Your task to perform on an android device: Is it going to rain tomorrow? Image 0: 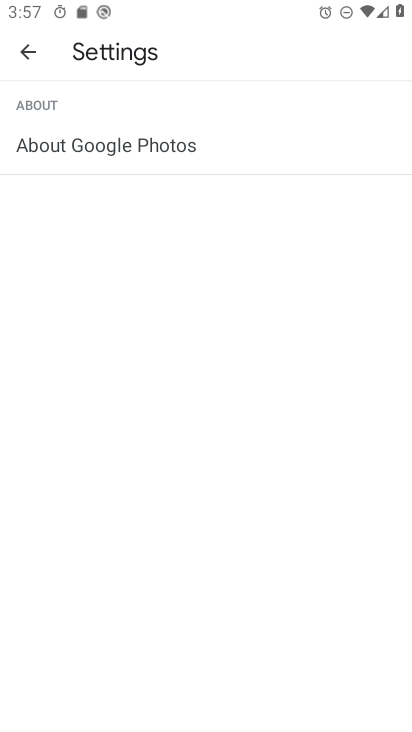
Step 0: press home button
Your task to perform on an android device: Is it going to rain tomorrow? Image 1: 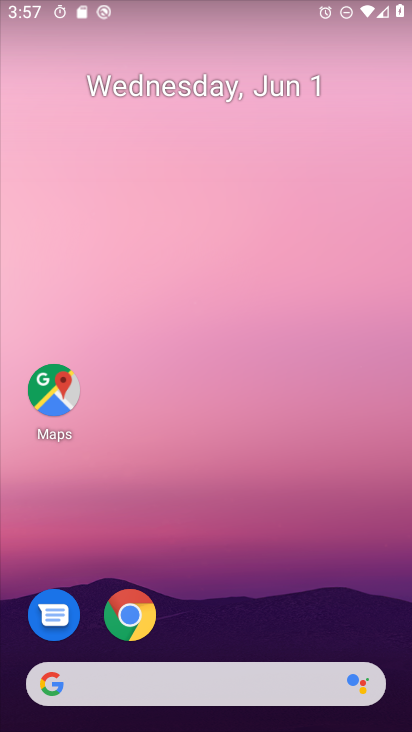
Step 1: drag from (41, 207) to (367, 218)
Your task to perform on an android device: Is it going to rain tomorrow? Image 2: 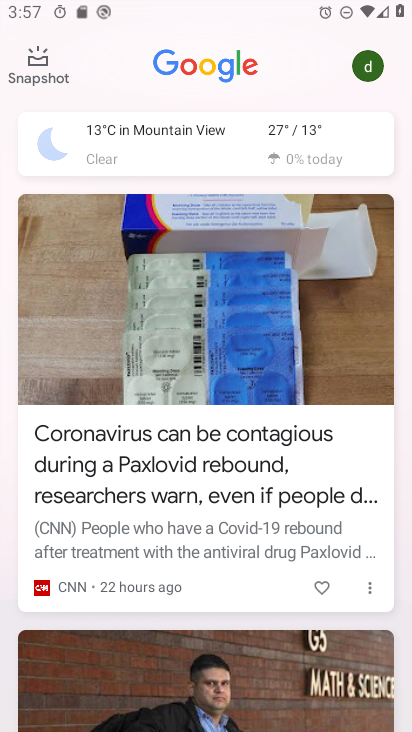
Step 2: click (240, 153)
Your task to perform on an android device: Is it going to rain tomorrow? Image 3: 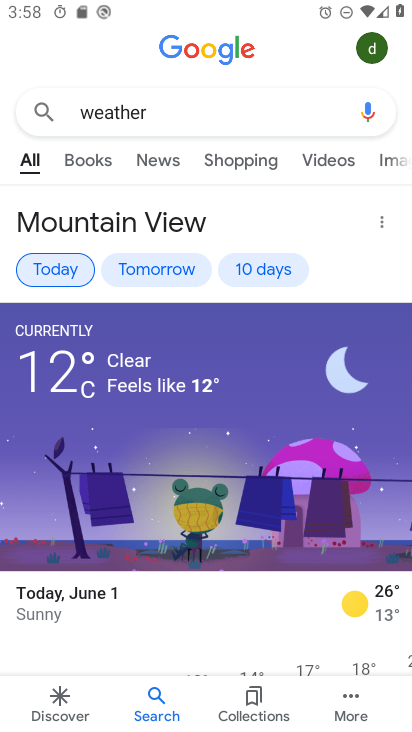
Step 3: click (183, 260)
Your task to perform on an android device: Is it going to rain tomorrow? Image 4: 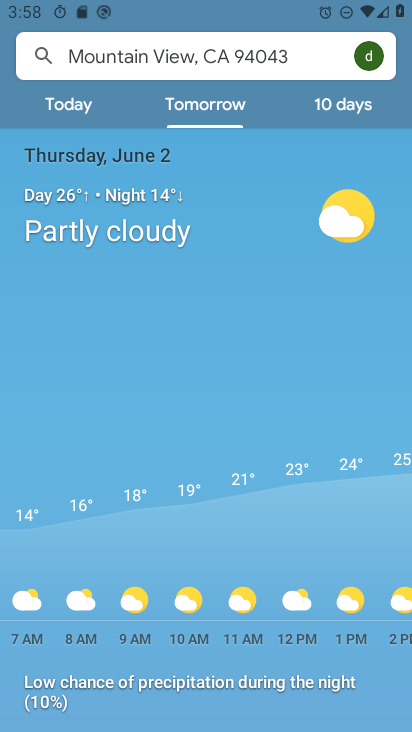
Step 4: task complete